Your task to perform on an android device: Go to ESPN.com Image 0: 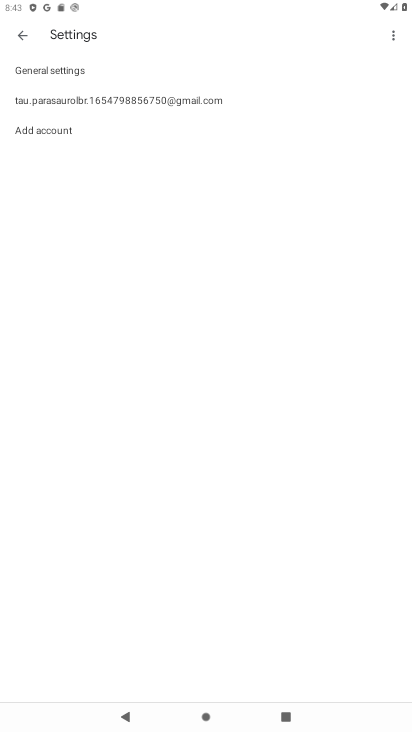
Step 0: press home button
Your task to perform on an android device: Go to ESPN.com Image 1: 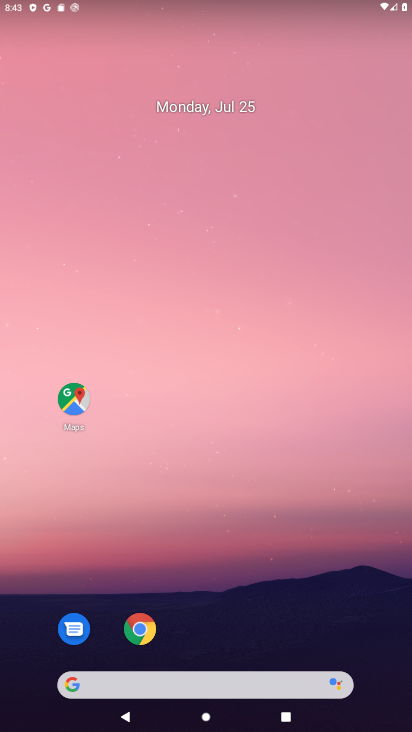
Step 1: click (151, 620)
Your task to perform on an android device: Go to ESPN.com Image 2: 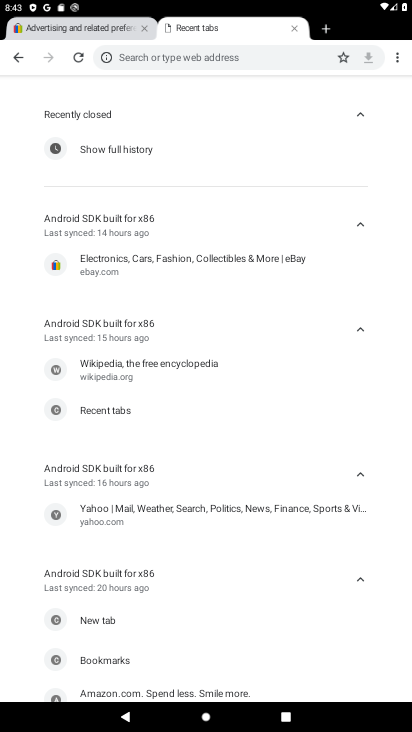
Step 2: click (328, 21)
Your task to perform on an android device: Go to ESPN.com Image 3: 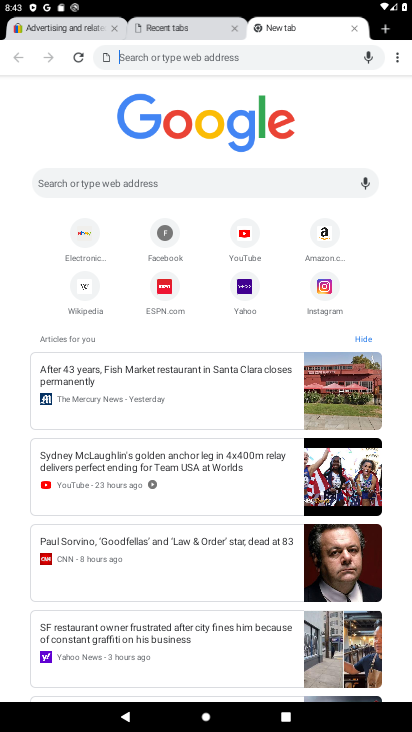
Step 3: click (161, 285)
Your task to perform on an android device: Go to ESPN.com Image 4: 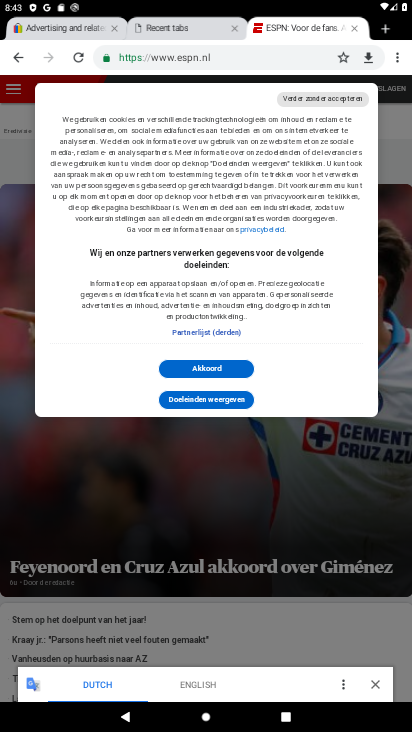
Step 4: task complete